Your task to perform on an android device: Open location settings Image 0: 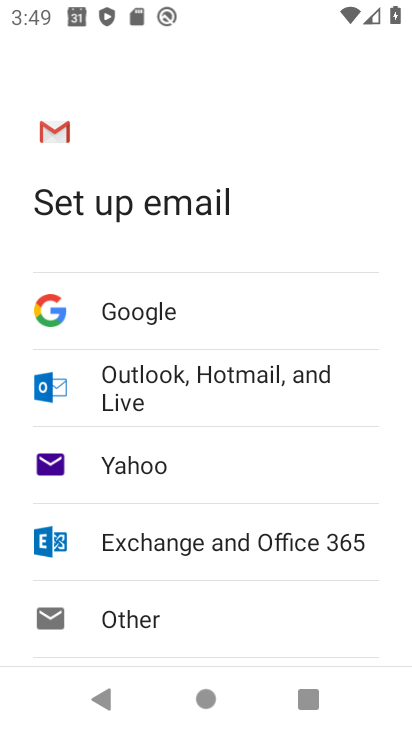
Step 0: press back button
Your task to perform on an android device: Open location settings Image 1: 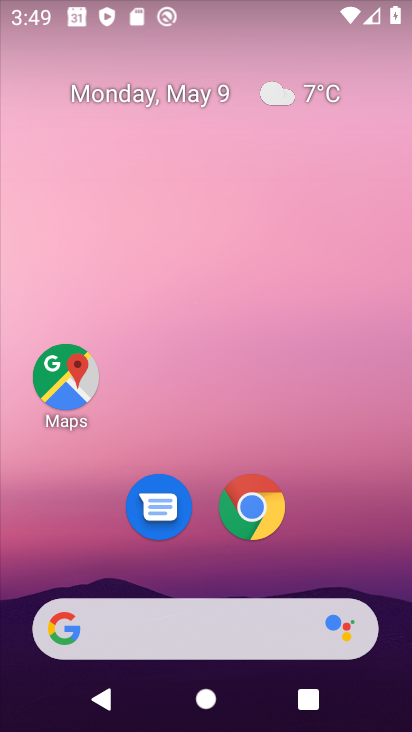
Step 1: drag from (317, 649) to (255, 103)
Your task to perform on an android device: Open location settings Image 2: 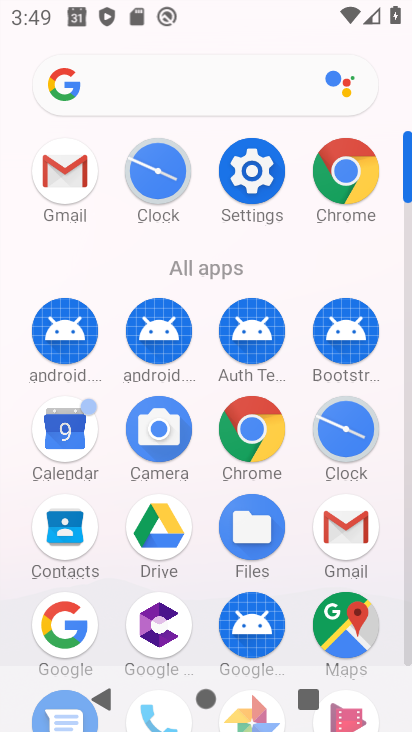
Step 2: click (252, 165)
Your task to perform on an android device: Open location settings Image 3: 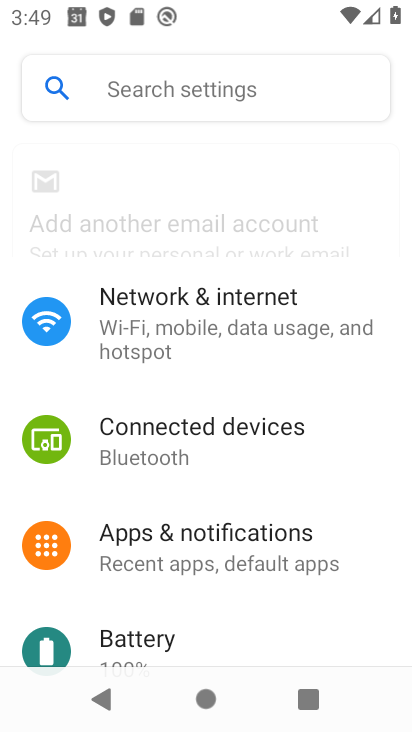
Step 3: click (161, 88)
Your task to perform on an android device: Open location settings Image 4: 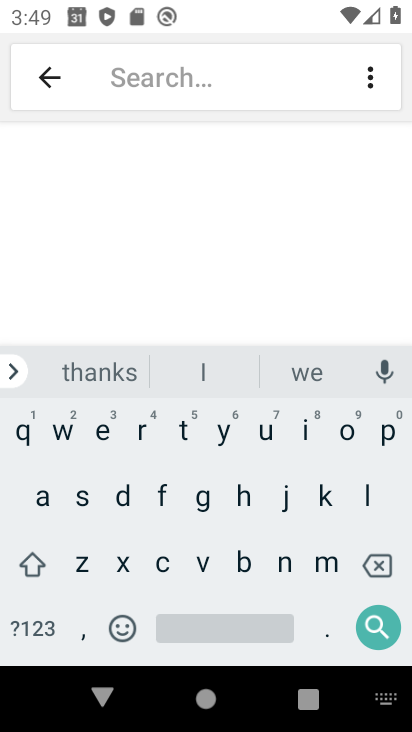
Step 4: click (370, 504)
Your task to perform on an android device: Open location settings Image 5: 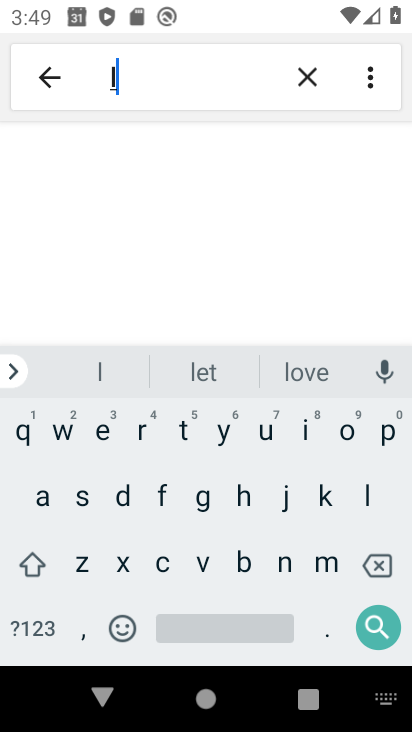
Step 5: click (333, 435)
Your task to perform on an android device: Open location settings Image 6: 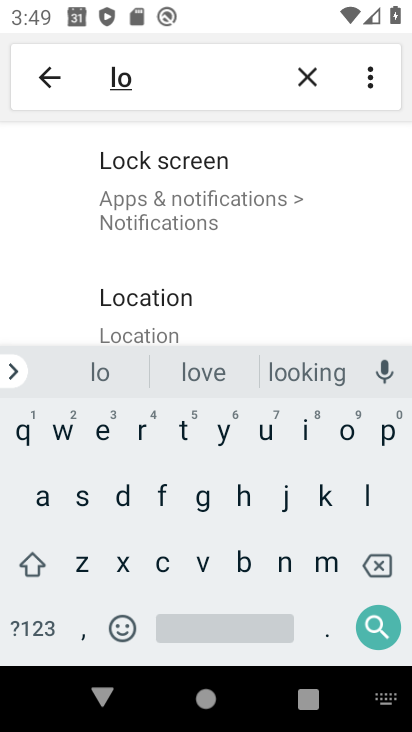
Step 6: click (165, 312)
Your task to perform on an android device: Open location settings Image 7: 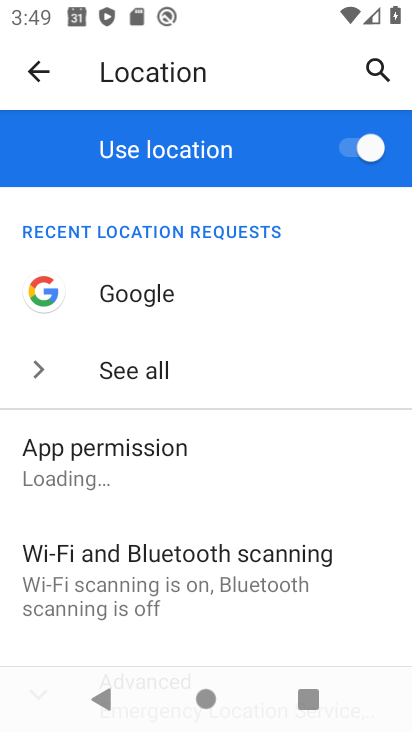
Step 7: task complete